Your task to perform on an android device: change the clock display to digital Image 0: 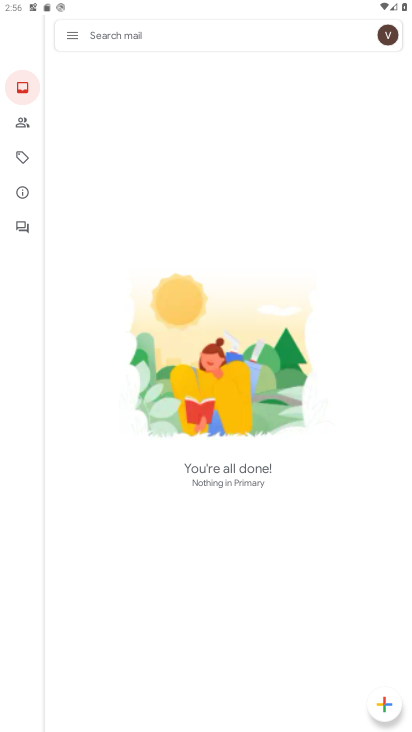
Step 0: press home button
Your task to perform on an android device: change the clock display to digital Image 1: 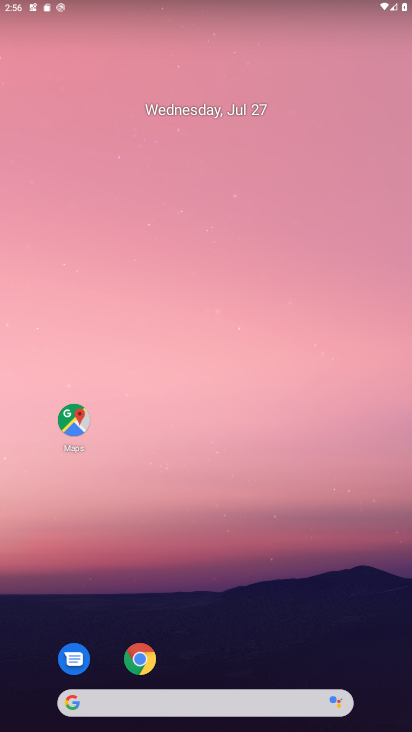
Step 1: drag from (267, 495) to (128, 0)
Your task to perform on an android device: change the clock display to digital Image 2: 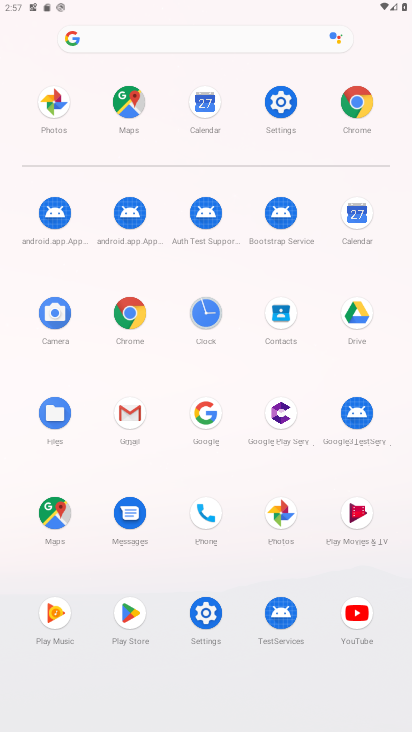
Step 2: click (192, 300)
Your task to perform on an android device: change the clock display to digital Image 3: 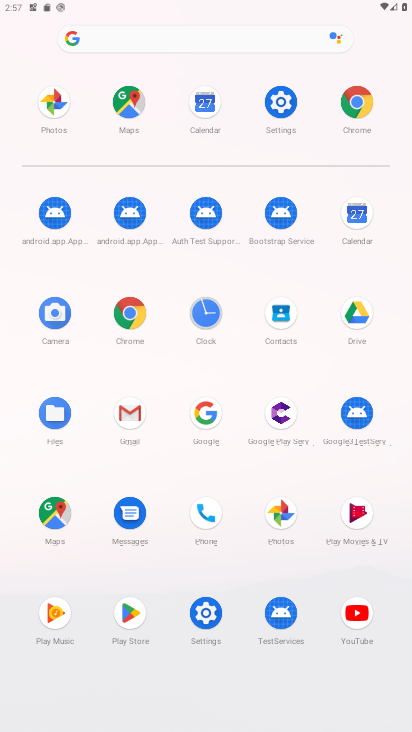
Step 3: click (213, 317)
Your task to perform on an android device: change the clock display to digital Image 4: 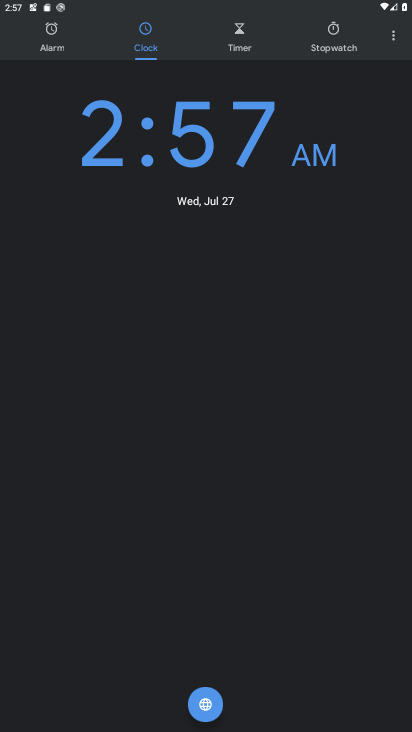
Step 4: click (404, 40)
Your task to perform on an android device: change the clock display to digital Image 5: 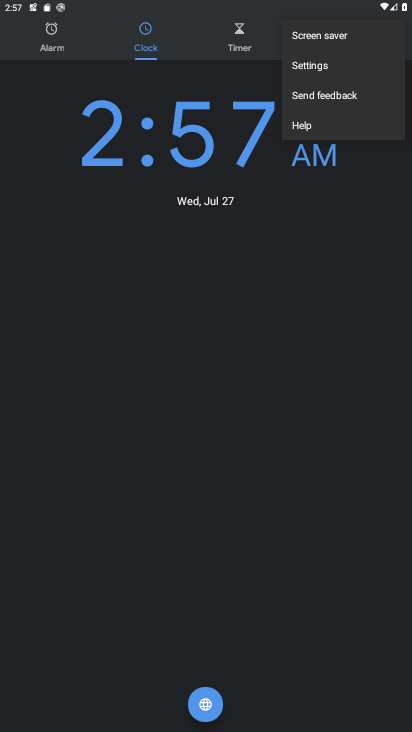
Step 5: click (312, 72)
Your task to perform on an android device: change the clock display to digital Image 6: 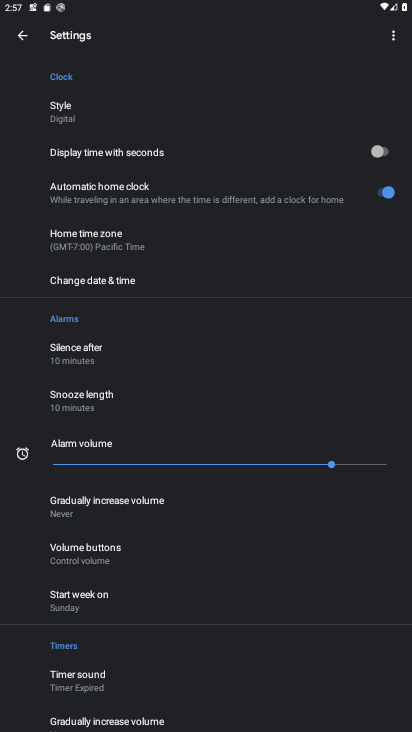
Step 6: click (75, 111)
Your task to perform on an android device: change the clock display to digital Image 7: 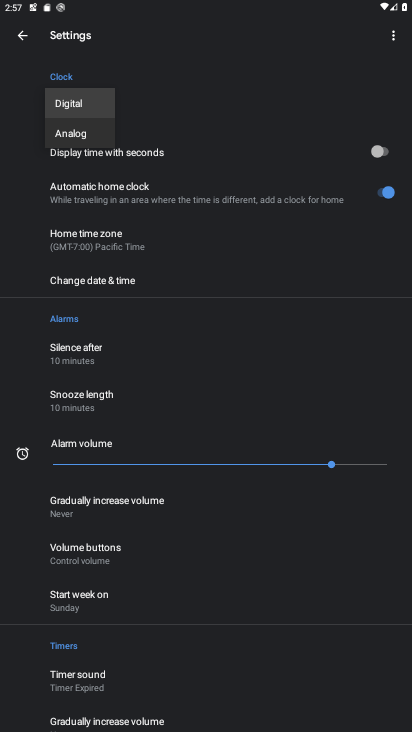
Step 7: task complete